Your task to perform on an android device: allow cookies in the chrome app Image 0: 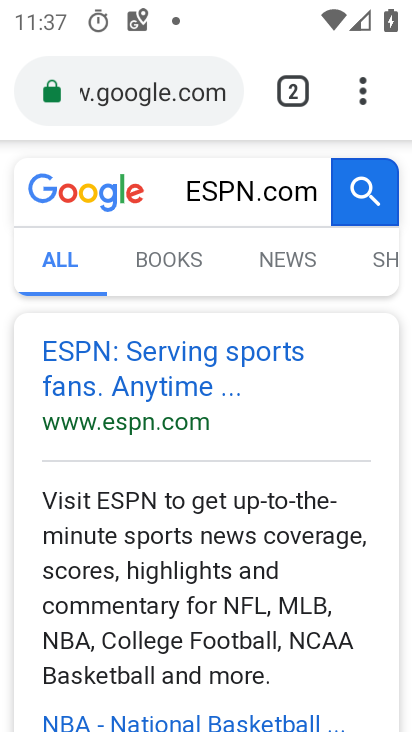
Step 0: click (366, 87)
Your task to perform on an android device: allow cookies in the chrome app Image 1: 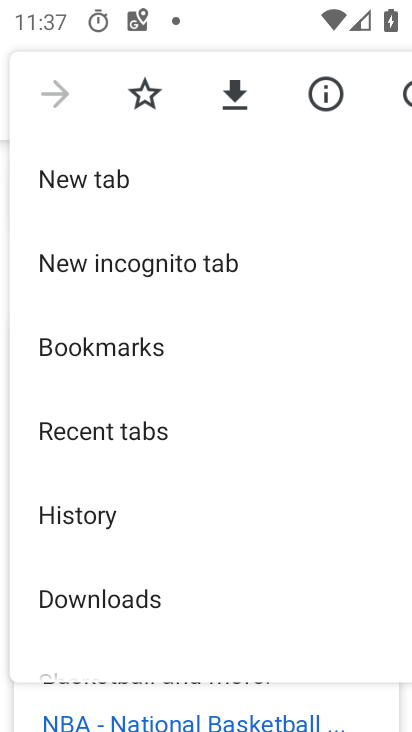
Step 1: drag from (266, 594) to (231, 290)
Your task to perform on an android device: allow cookies in the chrome app Image 2: 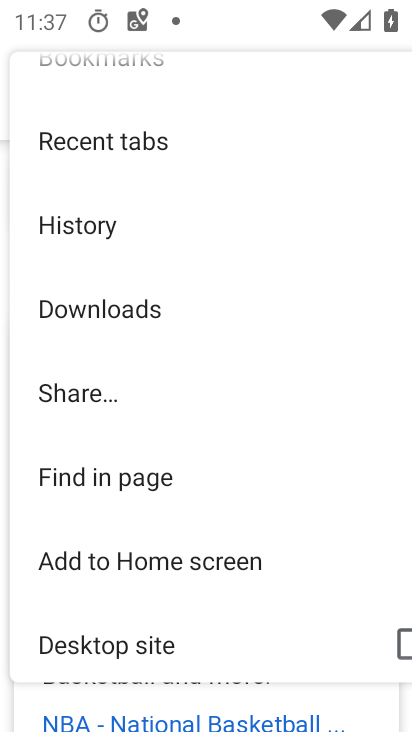
Step 2: drag from (369, 87) to (366, 537)
Your task to perform on an android device: allow cookies in the chrome app Image 3: 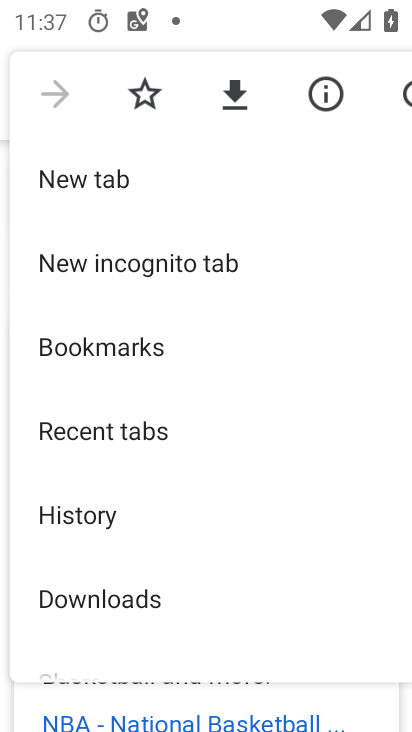
Step 3: drag from (301, 615) to (258, 365)
Your task to perform on an android device: allow cookies in the chrome app Image 4: 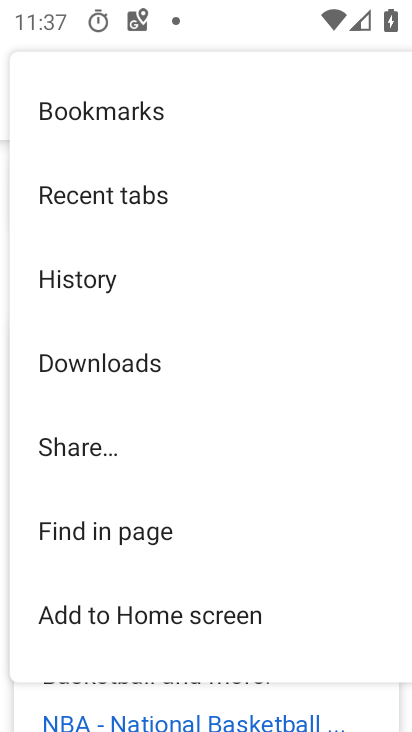
Step 4: drag from (301, 649) to (283, 149)
Your task to perform on an android device: allow cookies in the chrome app Image 5: 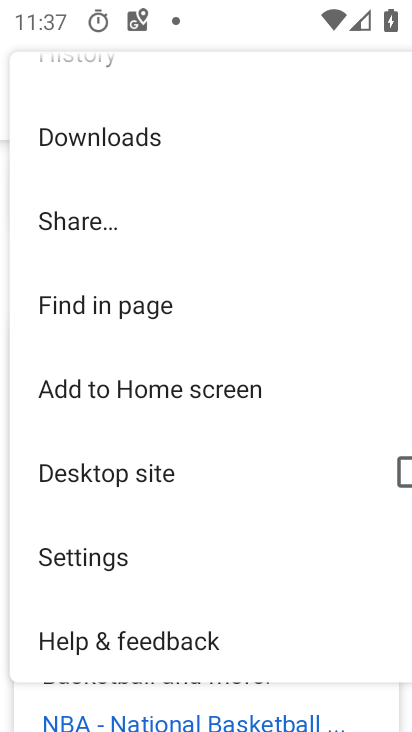
Step 5: click (37, 550)
Your task to perform on an android device: allow cookies in the chrome app Image 6: 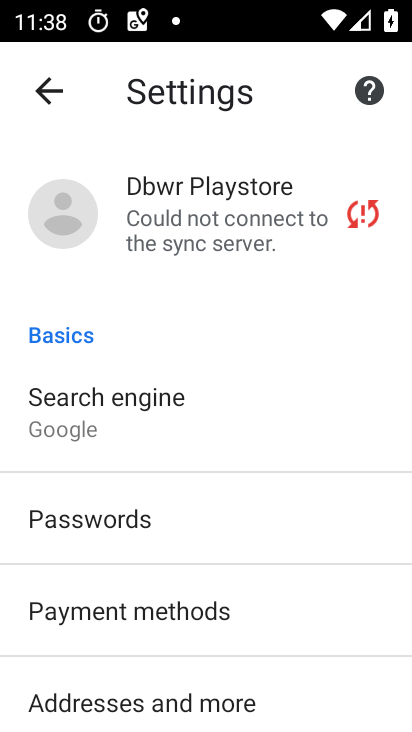
Step 6: drag from (388, 707) to (238, 276)
Your task to perform on an android device: allow cookies in the chrome app Image 7: 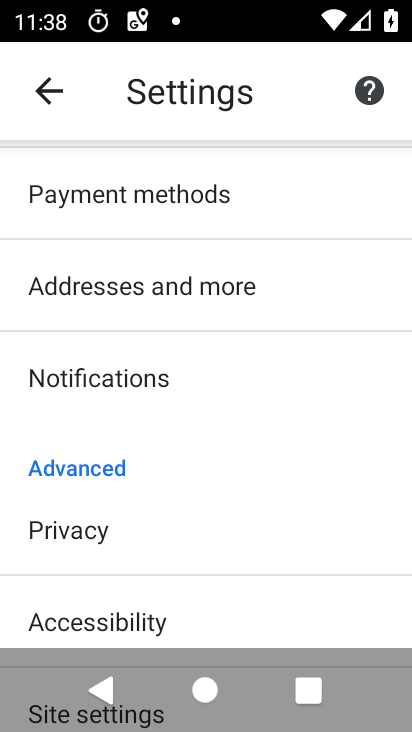
Step 7: drag from (294, 595) to (283, 304)
Your task to perform on an android device: allow cookies in the chrome app Image 8: 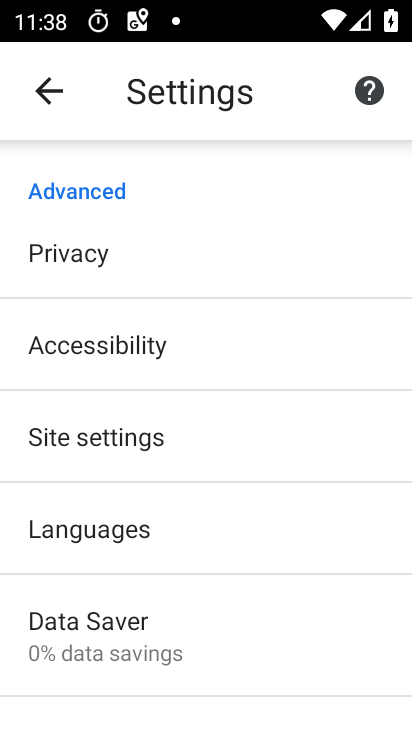
Step 8: click (108, 440)
Your task to perform on an android device: allow cookies in the chrome app Image 9: 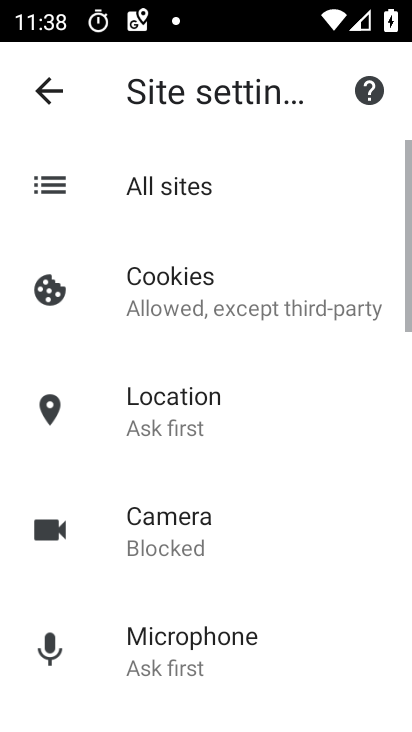
Step 9: click (228, 180)
Your task to perform on an android device: allow cookies in the chrome app Image 10: 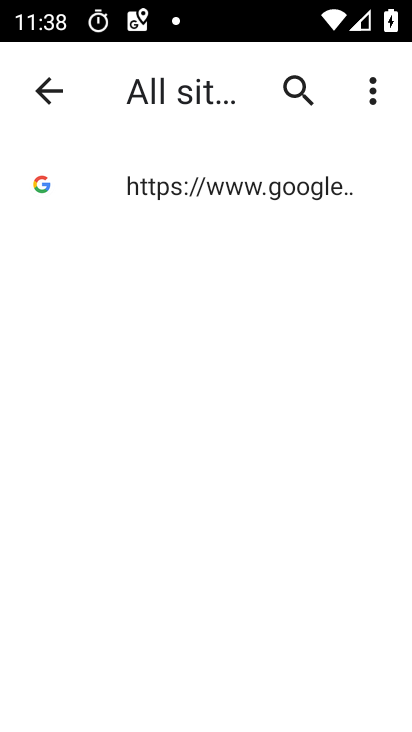
Step 10: click (44, 81)
Your task to perform on an android device: allow cookies in the chrome app Image 11: 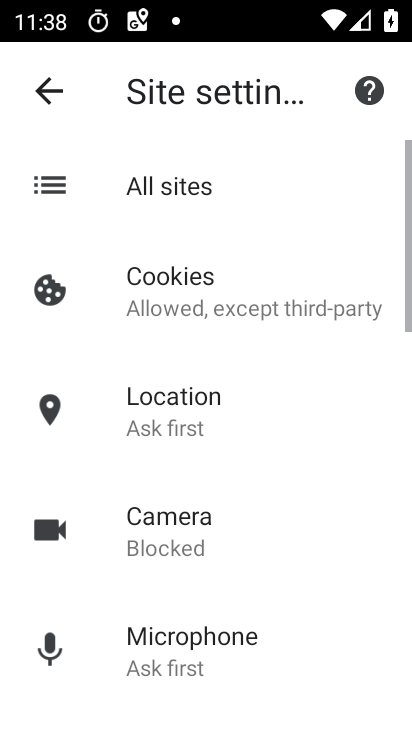
Step 11: click (226, 311)
Your task to perform on an android device: allow cookies in the chrome app Image 12: 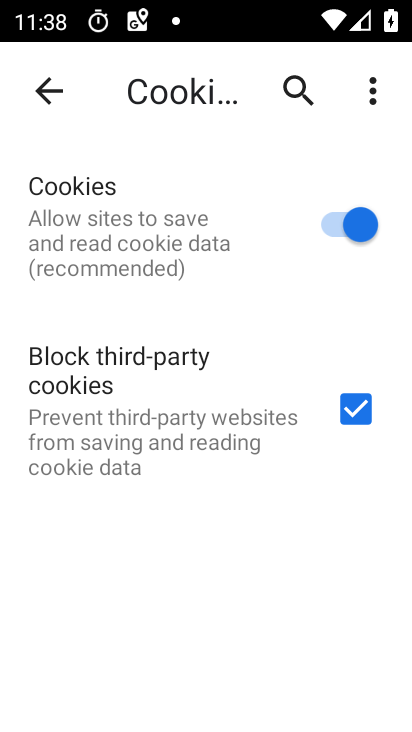
Step 12: task complete